Your task to perform on an android device: toggle notifications settings in the gmail app Image 0: 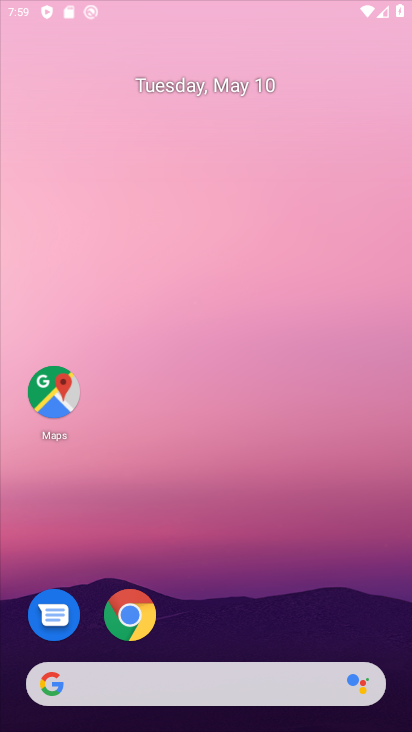
Step 0: drag from (199, 613) to (288, 168)
Your task to perform on an android device: toggle notifications settings in the gmail app Image 1: 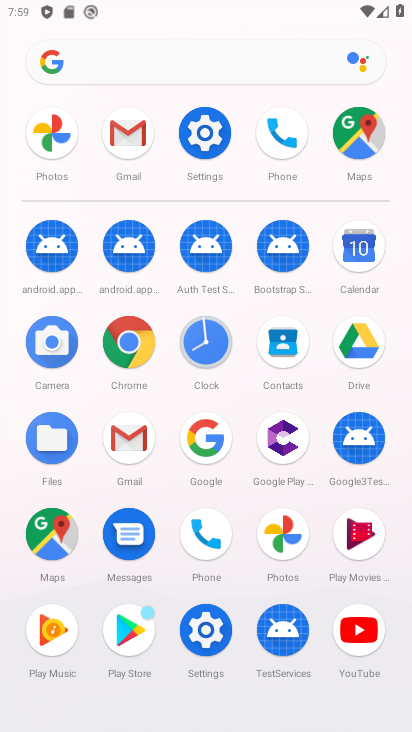
Step 1: click (136, 439)
Your task to perform on an android device: toggle notifications settings in the gmail app Image 2: 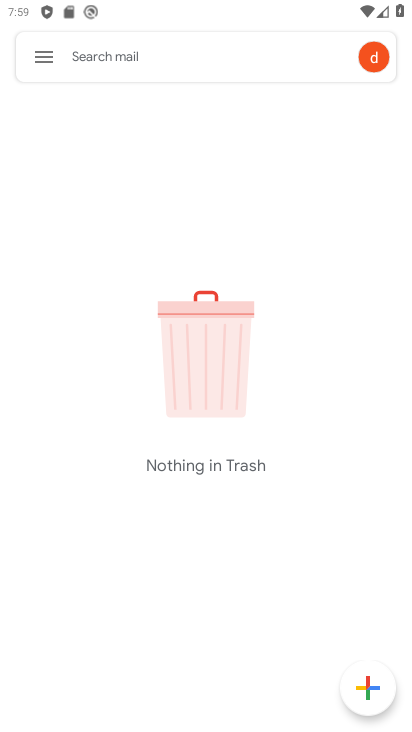
Step 2: click (37, 65)
Your task to perform on an android device: toggle notifications settings in the gmail app Image 3: 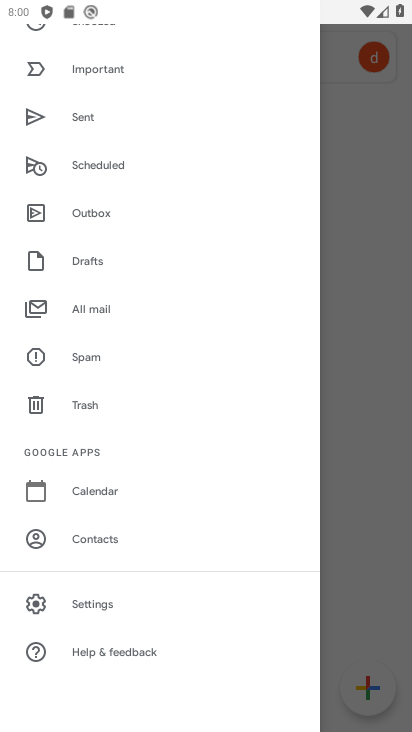
Step 3: click (89, 600)
Your task to perform on an android device: toggle notifications settings in the gmail app Image 4: 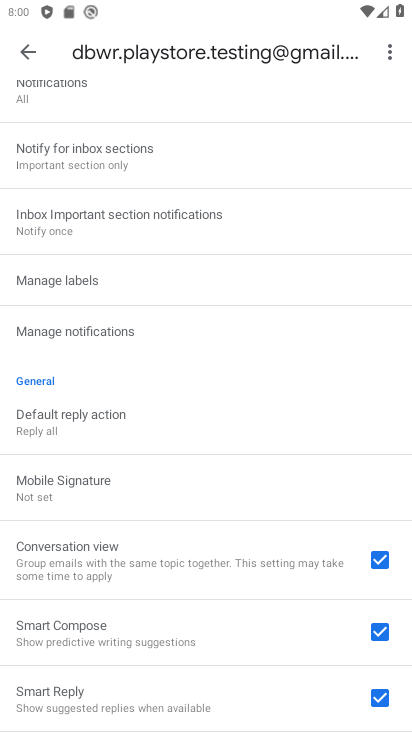
Step 4: drag from (119, 652) to (164, 437)
Your task to perform on an android device: toggle notifications settings in the gmail app Image 5: 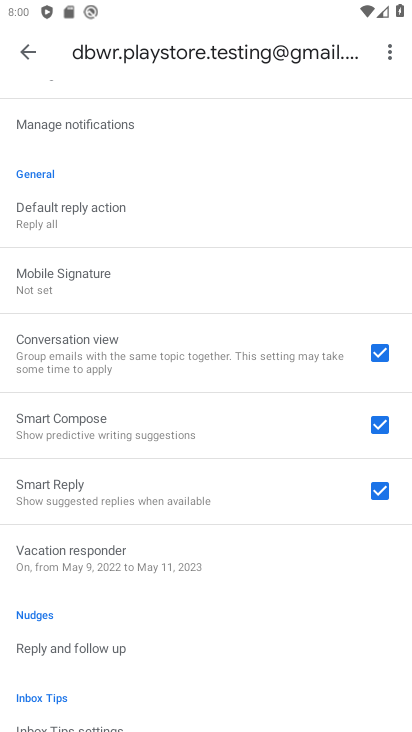
Step 5: click (155, 123)
Your task to perform on an android device: toggle notifications settings in the gmail app Image 6: 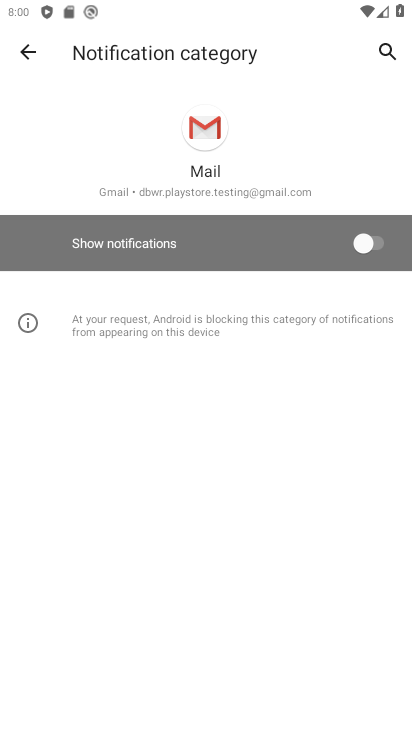
Step 6: click (337, 247)
Your task to perform on an android device: toggle notifications settings in the gmail app Image 7: 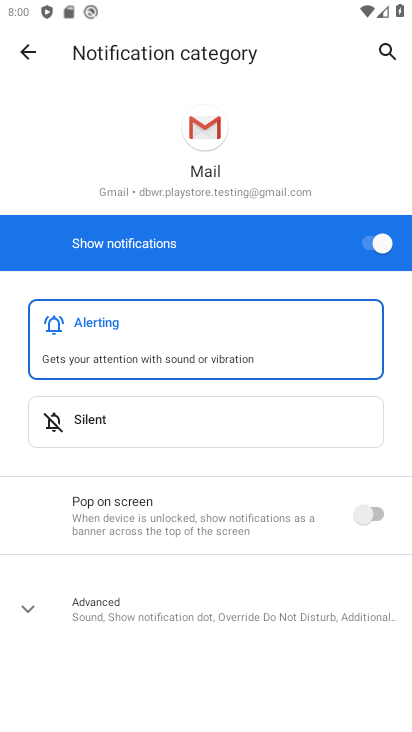
Step 7: task complete